Your task to perform on an android device: clear all cookies in the chrome app Image 0: 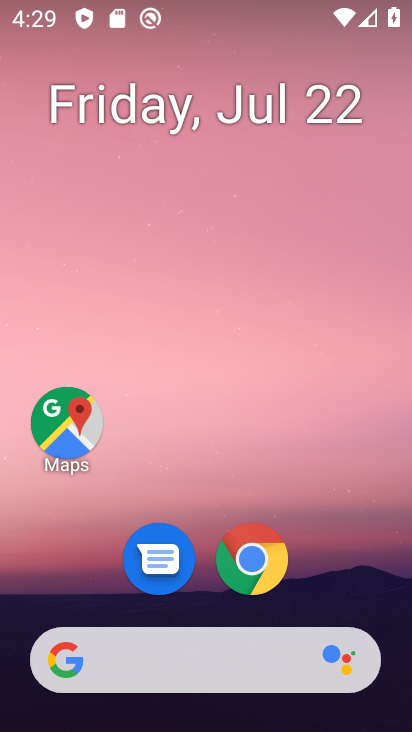
Step 0: click (248, 563)
Your task to perform on an android device: clear all cookies in the chrome app Image 1: 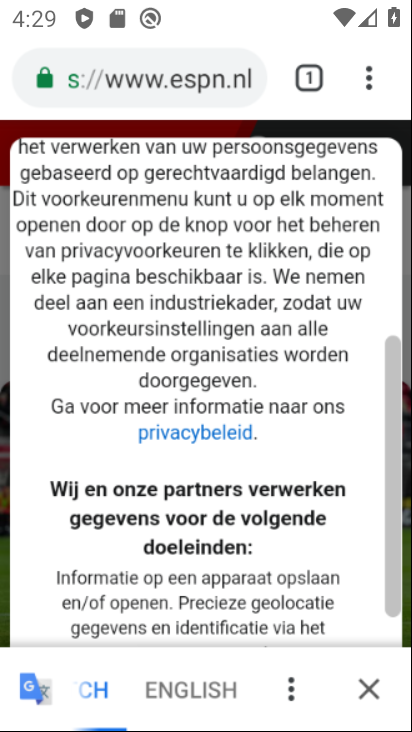
Step 1: click (370, 77)
Your task to perform on an android device: clear all cookies in the chrome app Image 2: 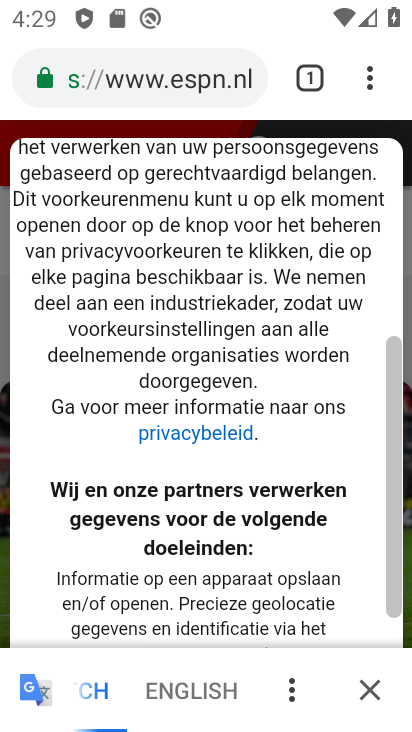
Step 2: drag from (373, 72) to (134, 438)
Your task to perform on an android device: clear all cookies in the chrome app Image 3: 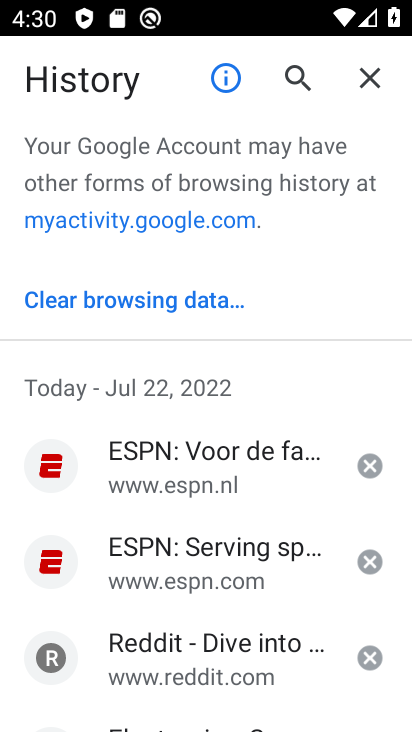
Step 3: click (162, 308)
Your task to perform on an android device: clear all cookies in the chrome app Image 4: 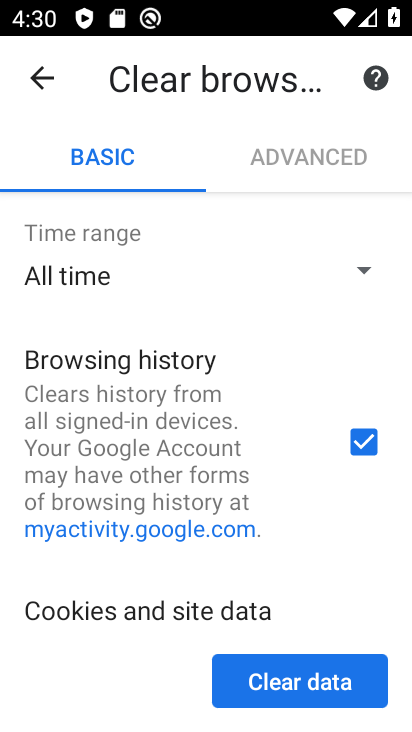
Step 4: click (364, 440)
Your task to perform on an android device: clear all cookies in the chrome app Image 5: 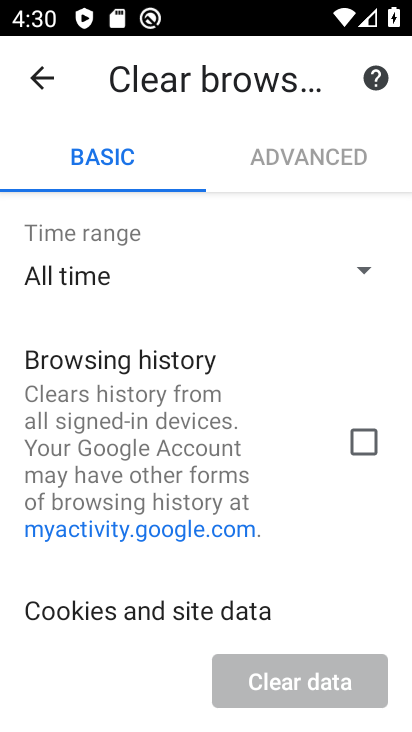
Step 5: drag from (185, 541) to (273, 129)
Your task to perform on an android device: clear all cookies in the chrome app Image 6: 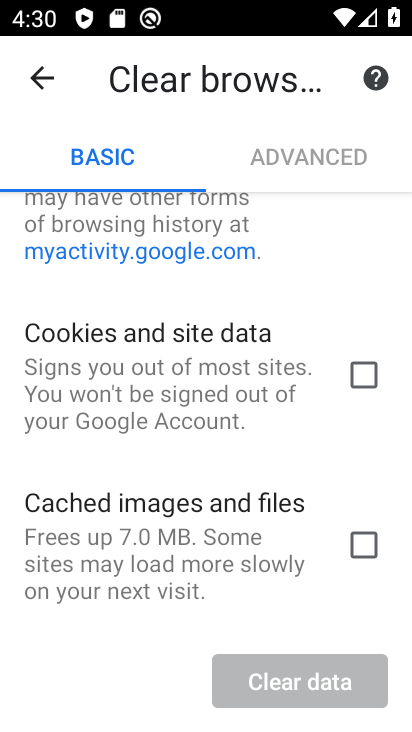
Step 6: click (360, 378)
Your task to perform on an android device: clear all cookies in the chrome app Image 7: 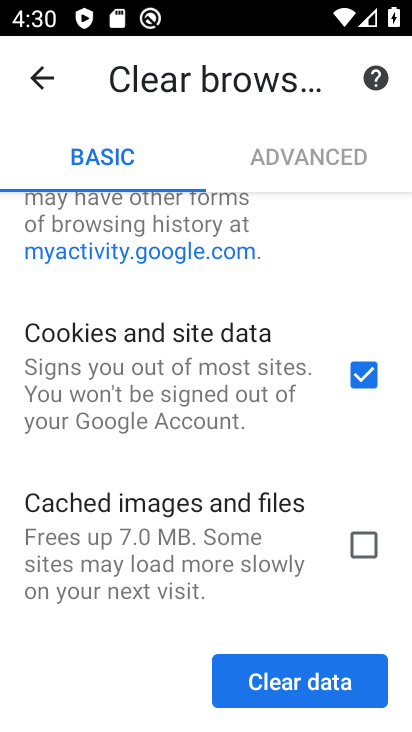
Step 7: click (333, 676)
Your task to perform on an android device: clear all cookies in the chrome app Image 8: 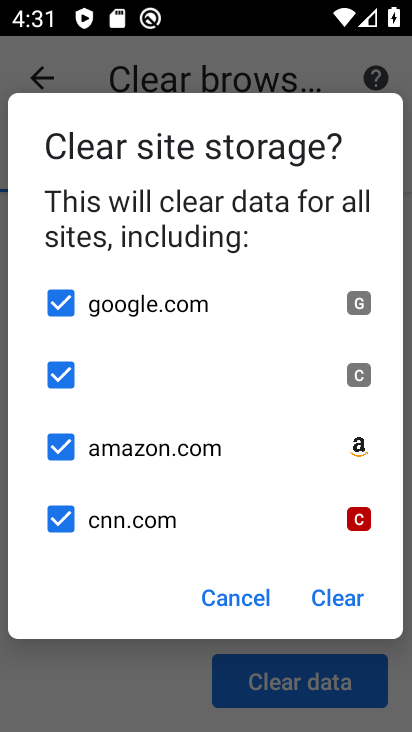
Step 8: click (325, 610)
Your task to perform on an android device: clear all cookies in the chrome app Image 9: 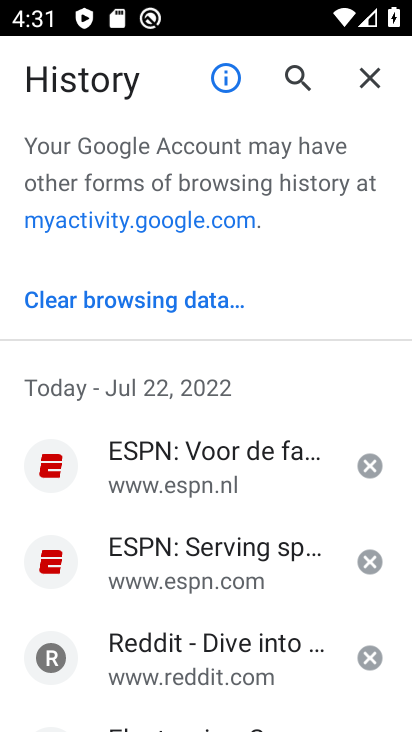
Step 9: task complete